Your task to perform on an android device: turn off translation in the chrome app Image 0: 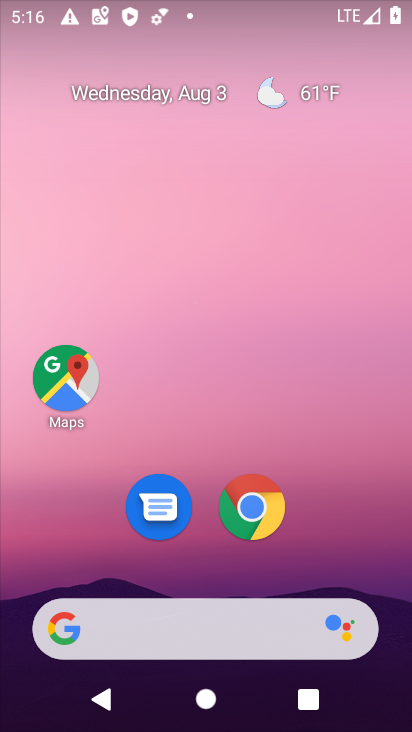
Step 0: drag from (333, 520) to (310, 36)
Your task to perform on an android device: turn off translation in the chrome app Image 1: 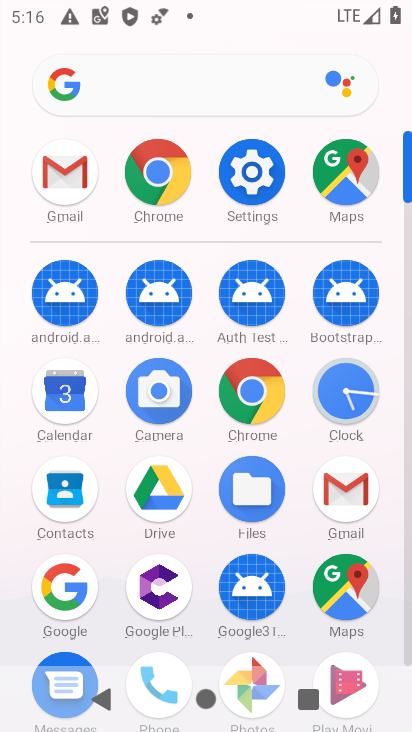
Step 1: click (252, 390)
Your task to perform on an android device: turn off translation in the chrome app Image 2: 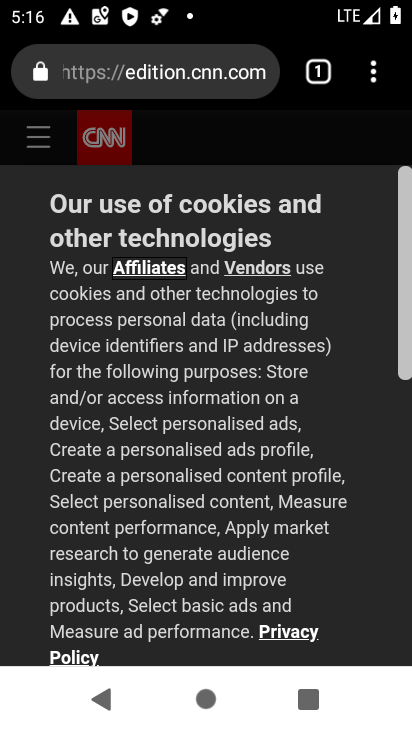
Step 2: drag from (375, 66) to (194, 515)
Your task to perform on an android device: turn off translation in the chrome app Image 3: 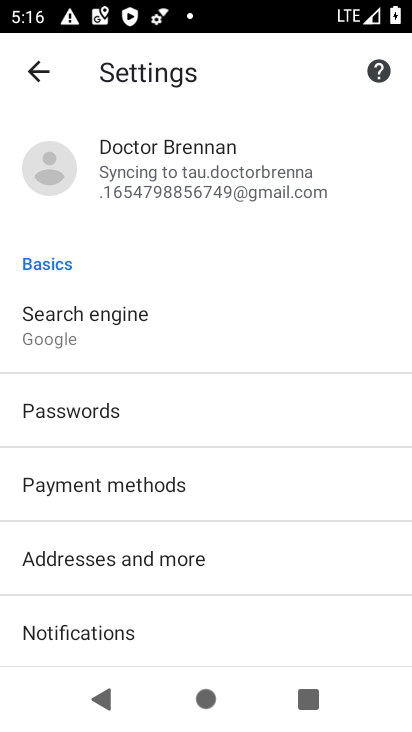
Step 3: drag from (274, 577) to (352, 96)
Your task to perform on an android device: turn off translation in the chrome app Image 4: 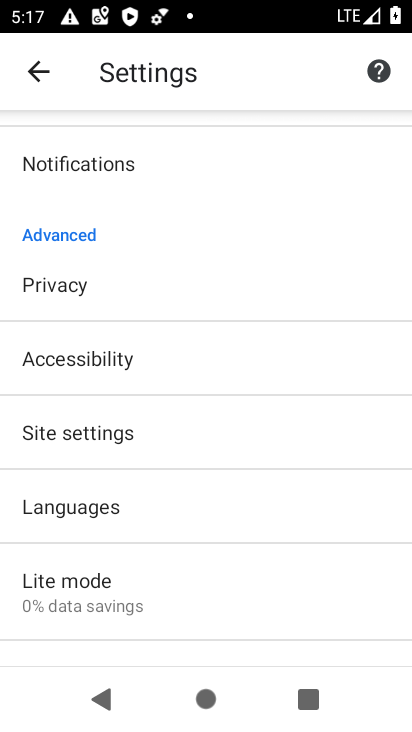
Step 4: click (106, 502)
Your task to perform on an android device: turn off translation in the chrome app Image 5: 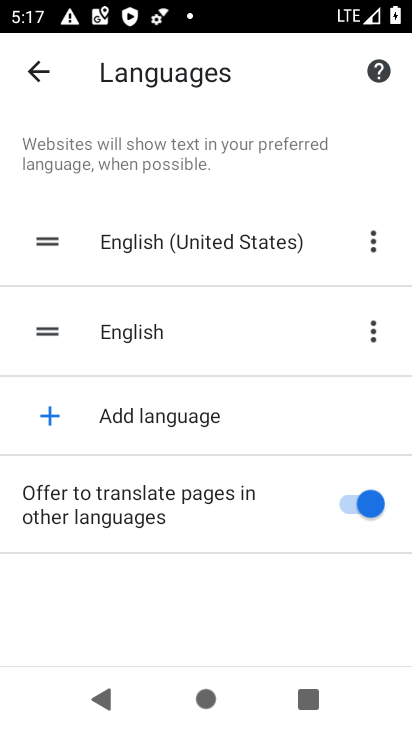
Step 5: click (343, 520)
Your task to perform on an android device: turn off translation in the chrome app Image 6: 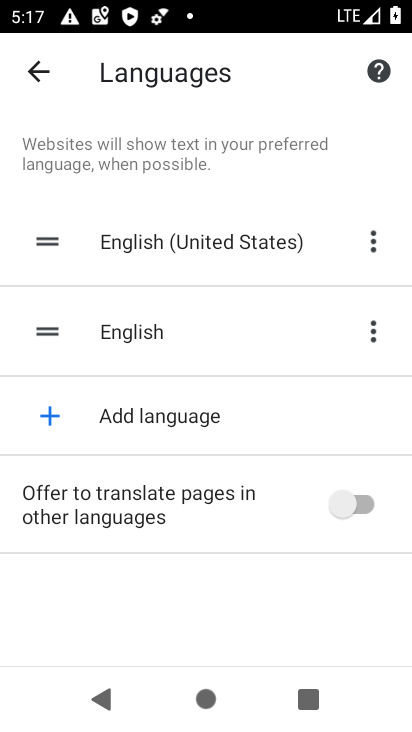
Step 6: task complete